Your task to perform on an android device: Open CNN.com Image 0: 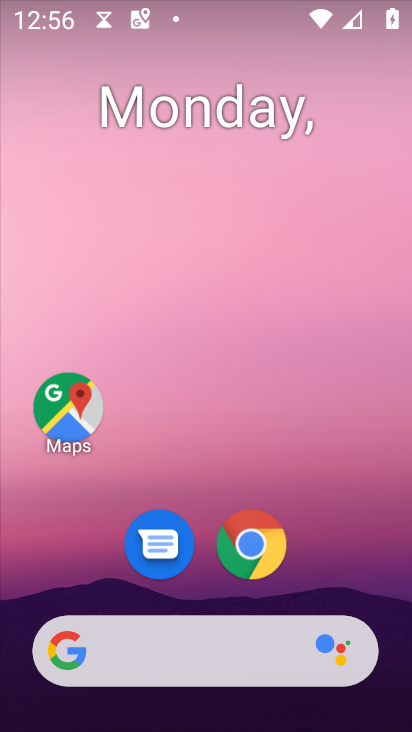
Step 0: click (270, 531)
Your task to perform on an android device: Open CNN.com Image 1: 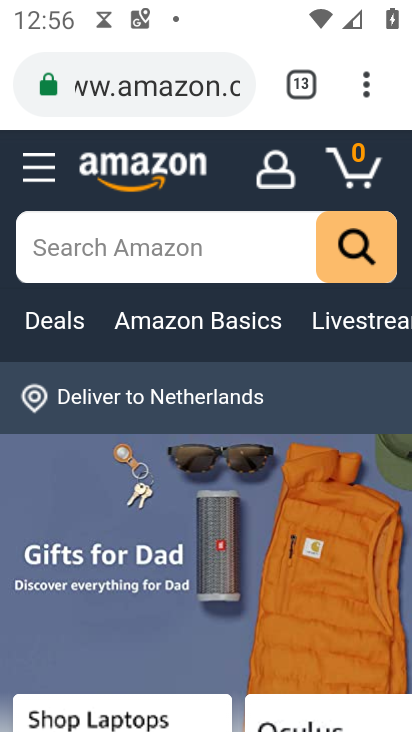
Step 1: click (367, 79)
Your task to perform on an android device: Open CNN.com Image 2: 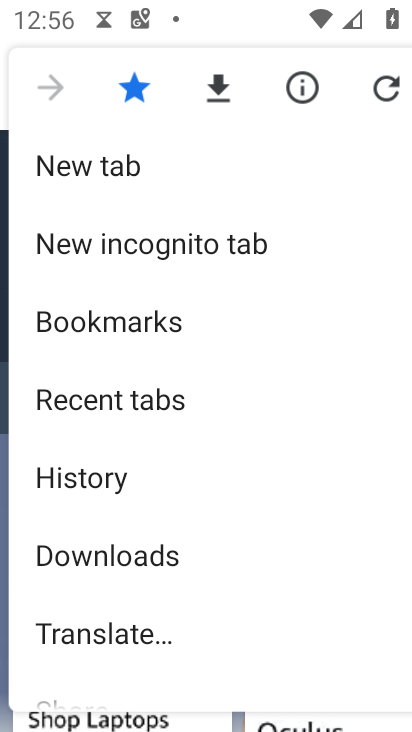
Step 2: click (125, 166)
Your task to perform on an android device: Open CNN.com Image 3: 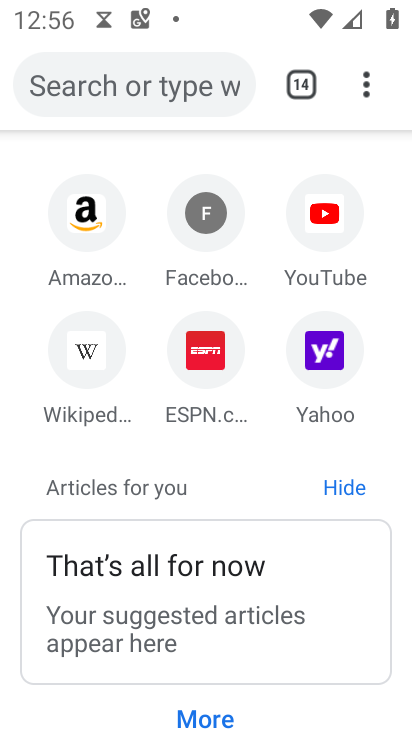
Step 3: click (118, 58)
Your task to perform on an android device: Open CNN.com Image 4: 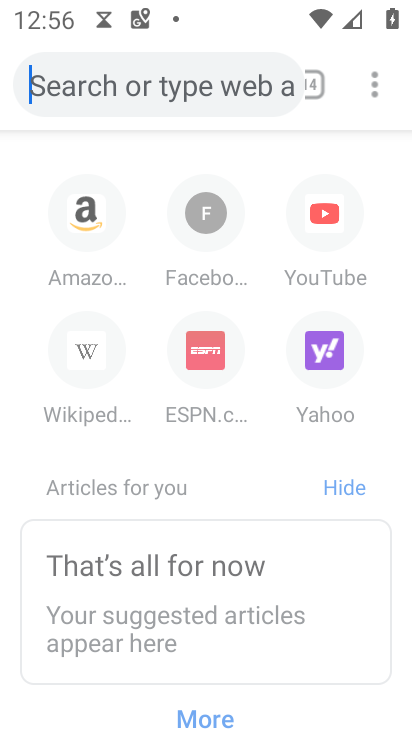
Step 4: click (121, 66)
Your task to perform on an android device: Open CNN.com Image 5: 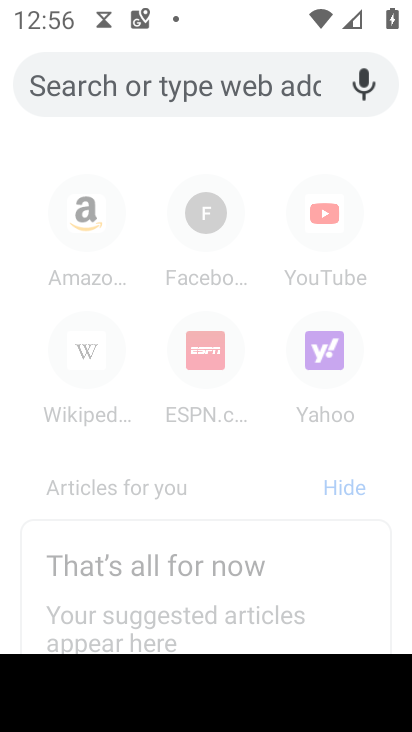
Step 5: type "CNN.com"
Your task to perform on an android device: Open CNN.com Image 6: 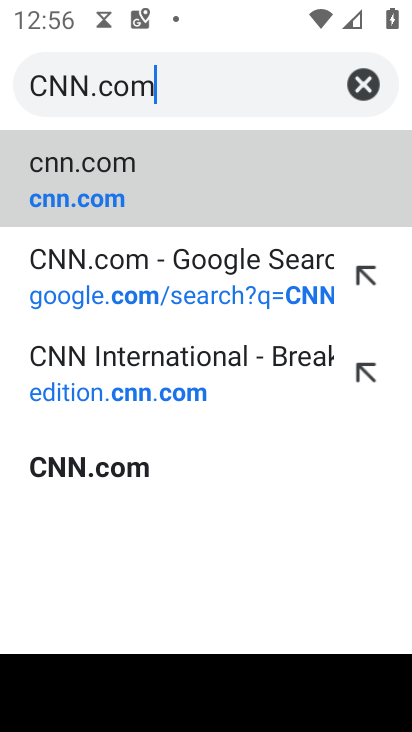
Step 6: click (105, 165)
Your task to perform on an android device: Open CNN.com Image 7: 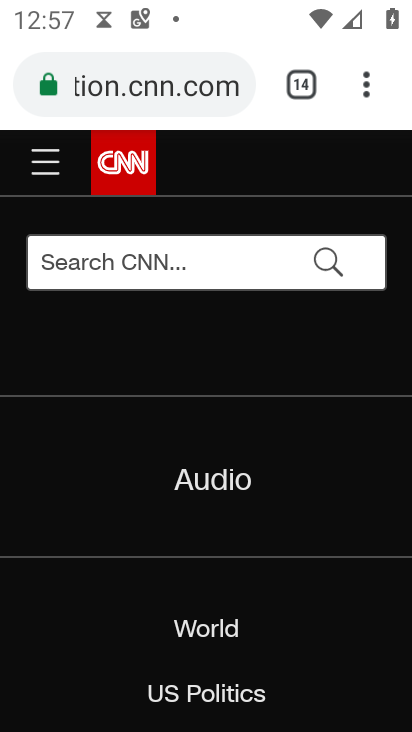
Step 7: task complete